Your task to perform on an android device: toggle sleep mode Image 0: 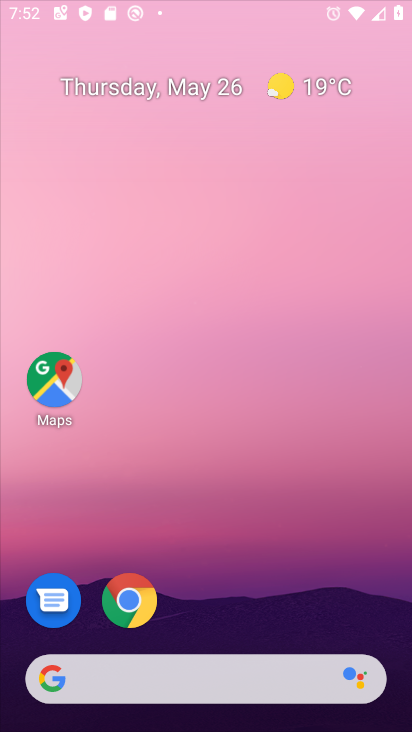
Step 0: press home button
Your task to perform on an android device: toggle sleep mode Image 1: 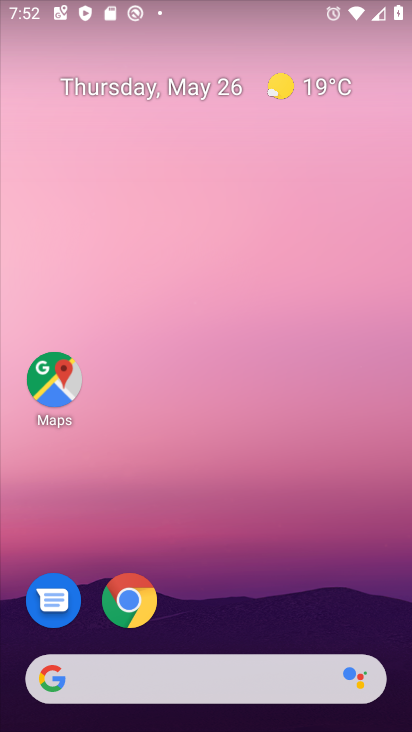
Step 1: drag from (264, 530) to (242, 148)
Your task to perform on an android device: toggle sleep mode Image 2: 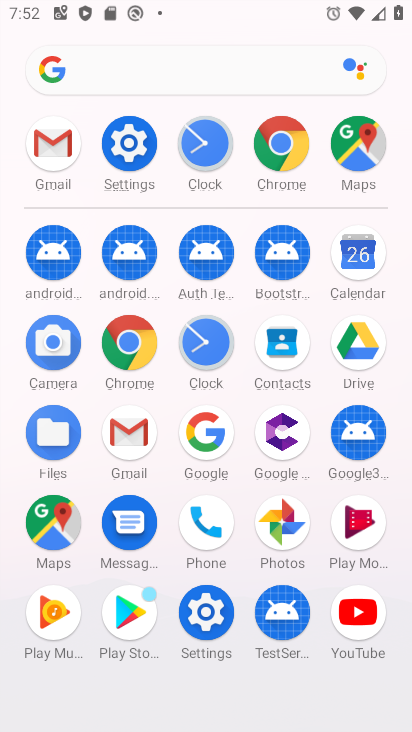
Step 2: click (136, 150)
Your task to perform on an android device: toggle sleep mode Image 3: 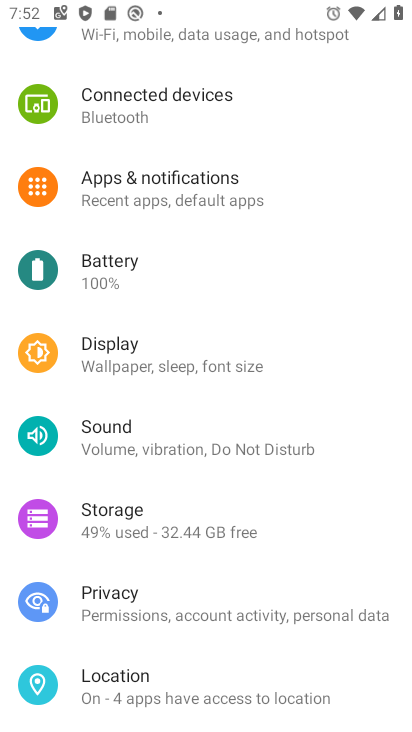
Step 3: click (149, 366)
Your task to perform on an android device: toggle sleep mode Image 4: 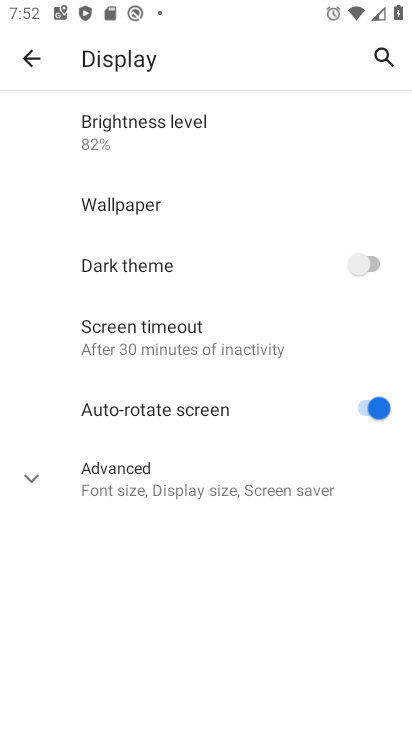
Step 4: task complete